Your task to perform on an android device: turn off data saver in the chrome app Image 0: 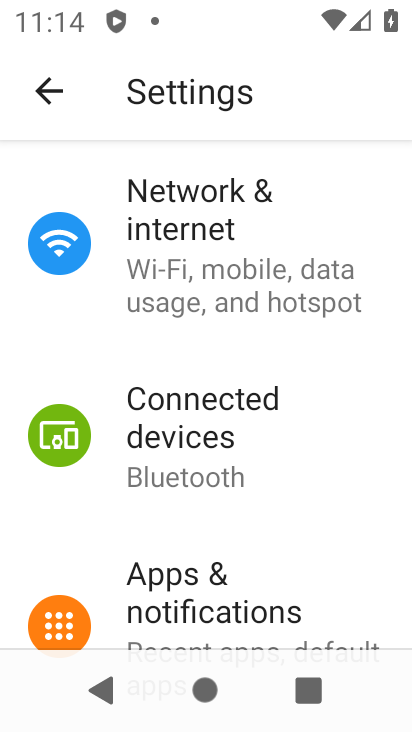
Step 0: press home button
Your task to perform on an android device: turn off data saver in the chrome app Image 1: 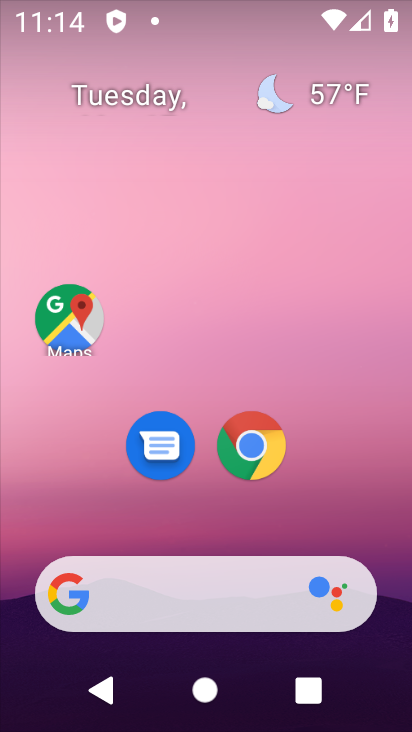
Step 1: drag from (370, 539) to (376, 202)
Your task to perform on an android device: turn off data saver in the chrome app Image 2: 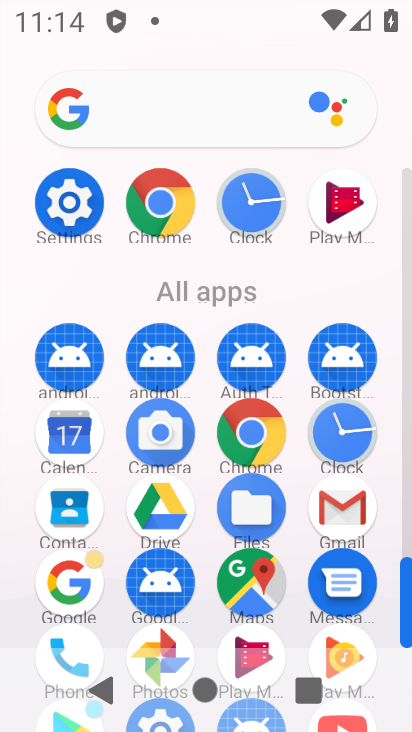
Step 2: click (269, 431)
Your task to perform on an android device: turn off data saver in the chrome app Image 3: 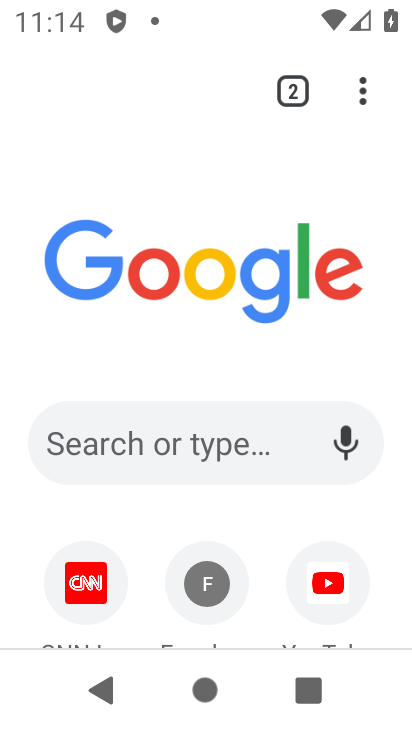
Step 3: click (363, 100)
Your task to perform on an android device: turn off data saver in the chrome app Image 4: 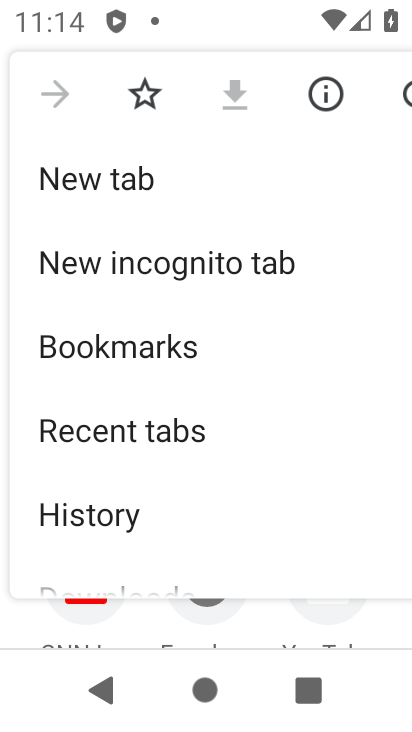
Step 4: drag from (337, 462) to (338, 364)
Your task to perform on an android device: turn off data saver in the chrome app Image 5: 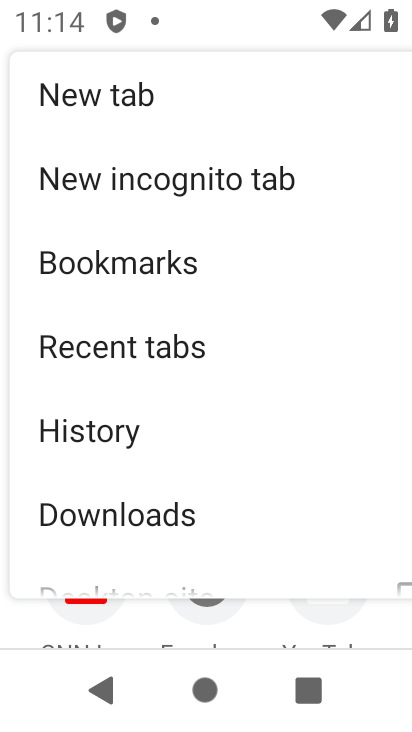
Step 5: drag from (332, 496) to (349, 372)
Your task to perform on an android device: turn off data saver in the chrome app Image 6: 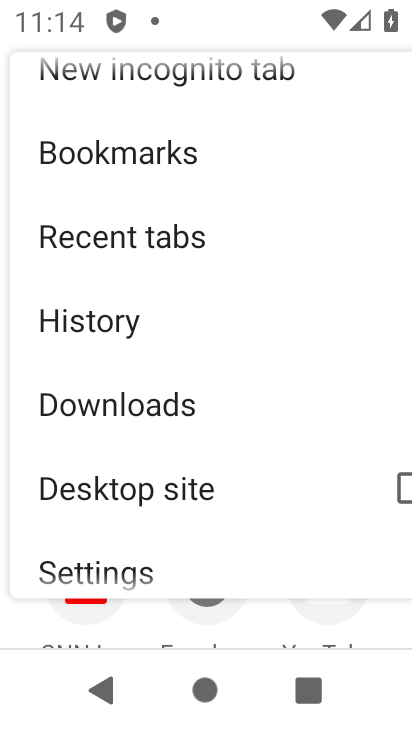
Step 6: drag from (351, 476) to (349, 364)
Your task to perform on an android device: turn off data saver in the chrome app Image 7: 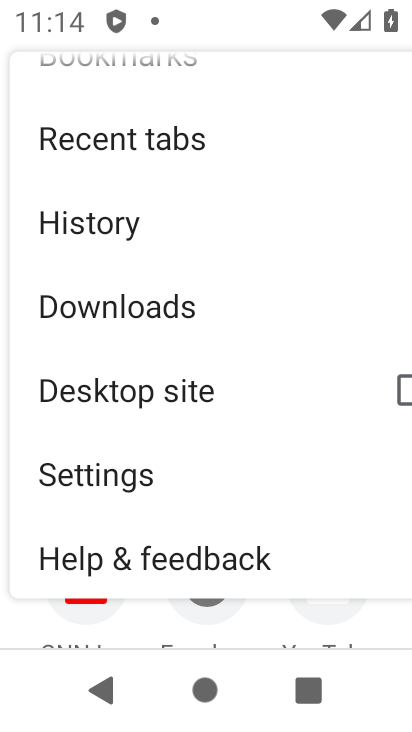
Step 7: drag from (321, 493) to (335, 353)
Your task to perform on an android device: turn off data saver in the chrome app Image 8: 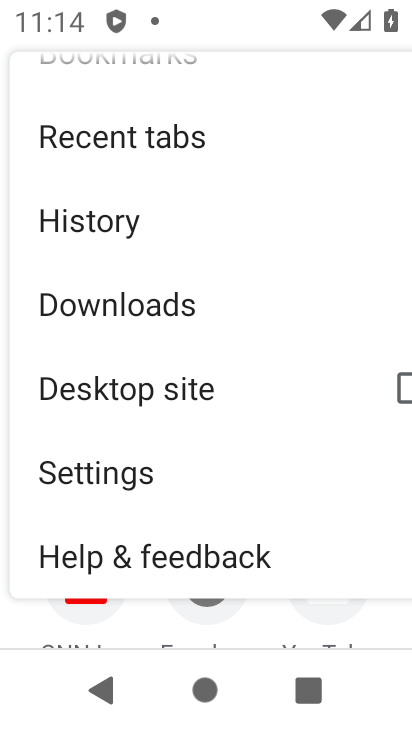
Step 8: drag from (319, 432) to (317, 336)
Your task to perform on an android device: turn off data saver in the chrome app Image 9: 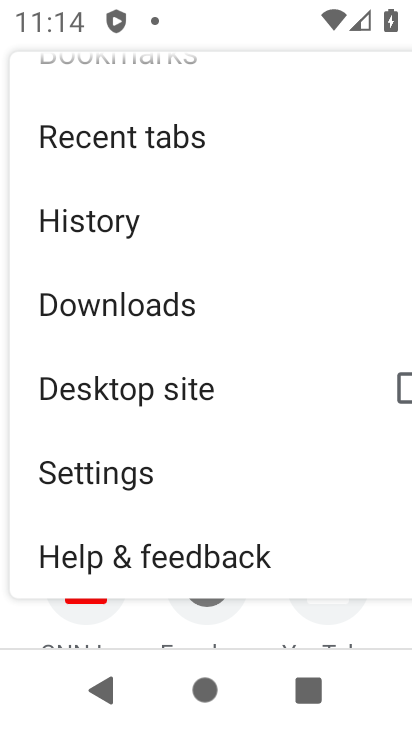
Step 9: click (146, 473)
Your task to perform on an android device: turn off data saver in the chrome app Image 10: 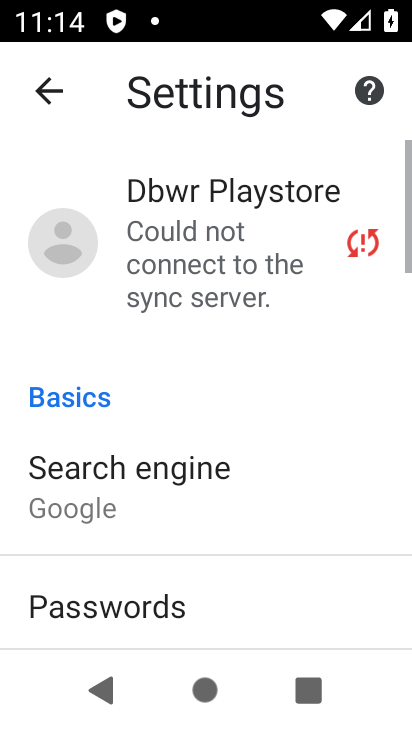
Step 10: drag from (278, 522) to (283, 396)
Your task to perform on an android device: turn off data saver in the chrome app Image 11: 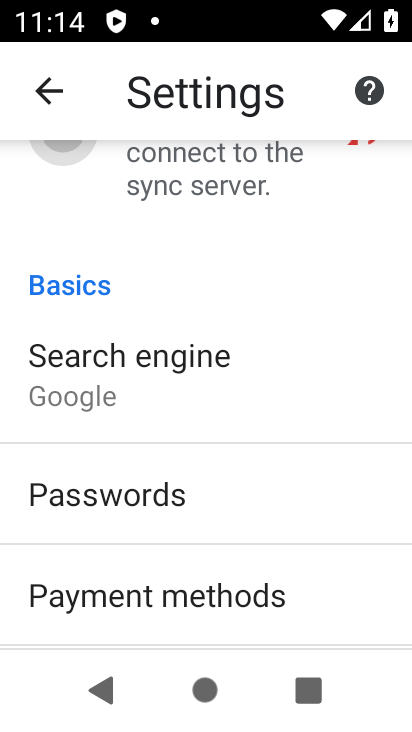
Step 11: drag from (295, 529) to (301, 408)
Your task to perform on an android device: turn off data saver in the chrome app Image 12: 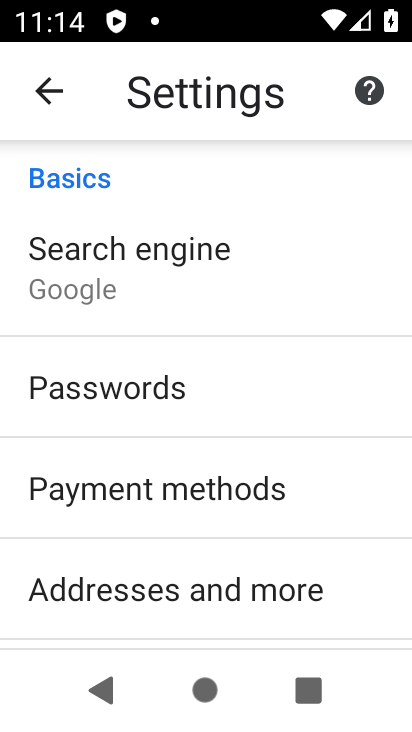
Step 12: drag from (329, 613) to (327, 440)
Your task to perform on an android device: turn off data saver in the chrome app Image 13: 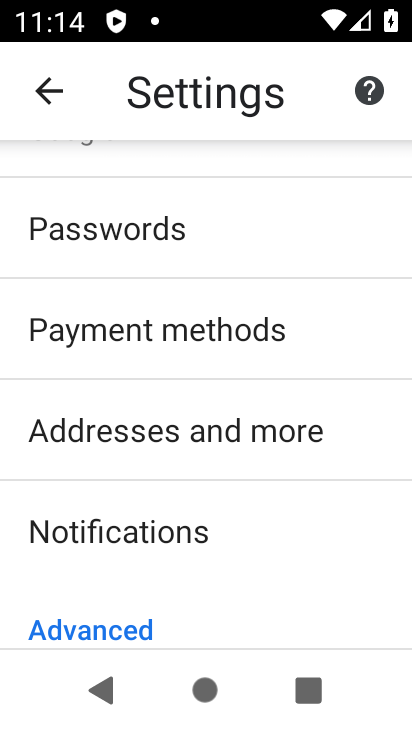
Step 13: drag from (313, 579) to (309, 461)
Your task to perform on an android device: turn off data saver in the chrome app Image 14: 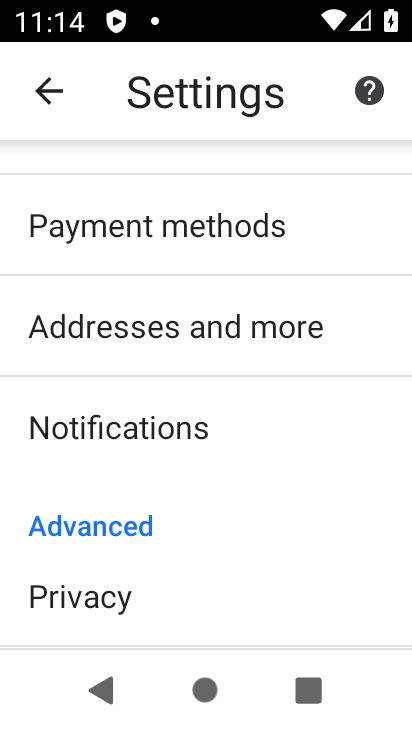
Step 14: drag from (294, 581) to (296, 476)
Your task to perform on an android device: turn off data saver in the chrome app Image 15: 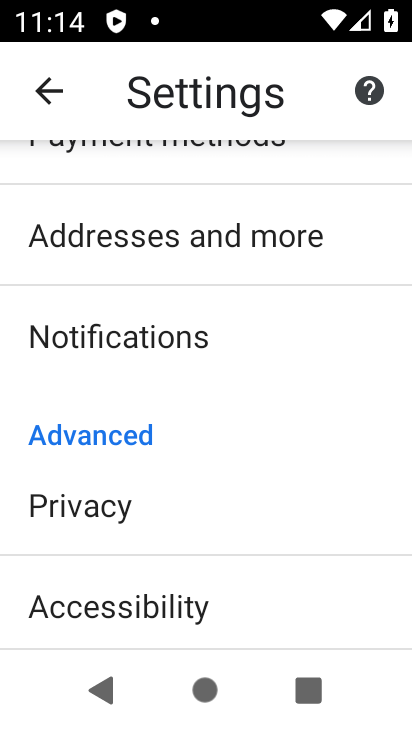
Step 15: drag from (285, 590) to (282, 475)
Your task to perform on an android device: turn off data saver in the chrome app Image 16: 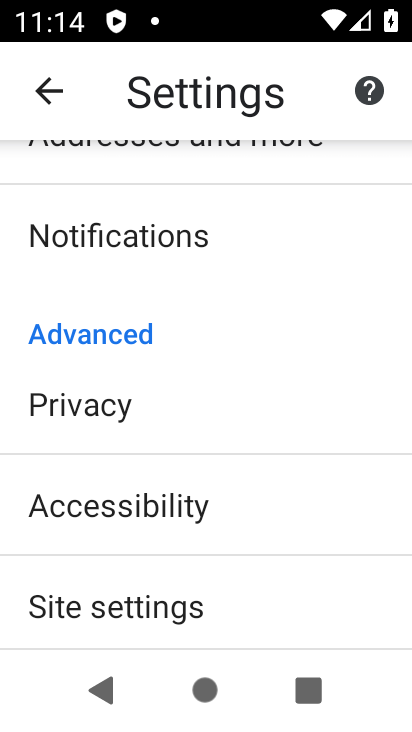
Step 16: drag from (295, 589) to (295, 496)
Your task to perform on an android device: turn off data saver in the chrome app Image 17: 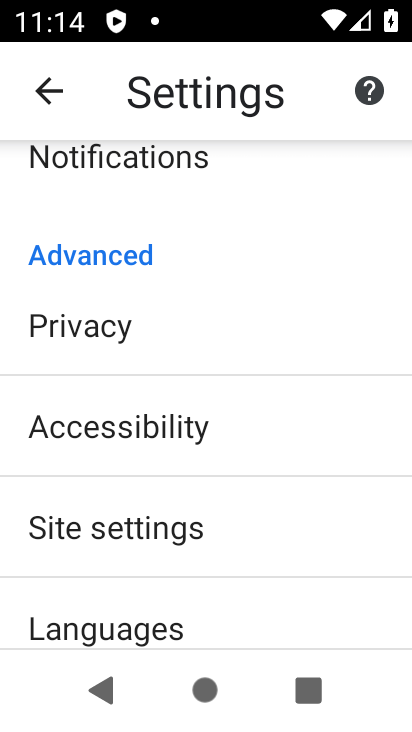
Step 17: drag from (306, 595) to (302, 486)
Your task to perform on an android device: turn off data saver in the chrome app Image 18: 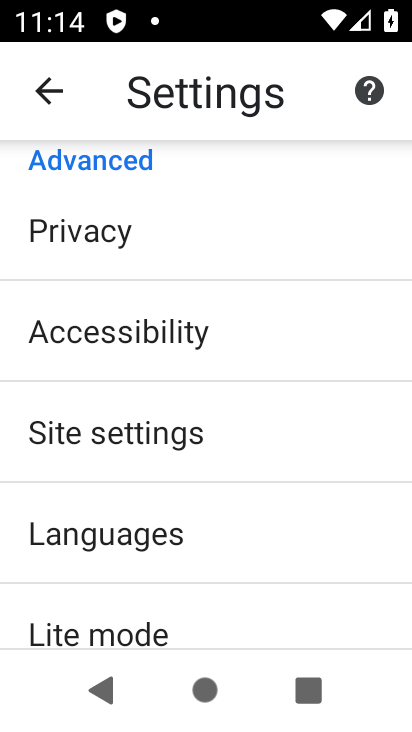
Step 18: drag from (295, 601) to (299, 491)
Your task to perform on an android device: turn off data saver in the chrome app Image 19: 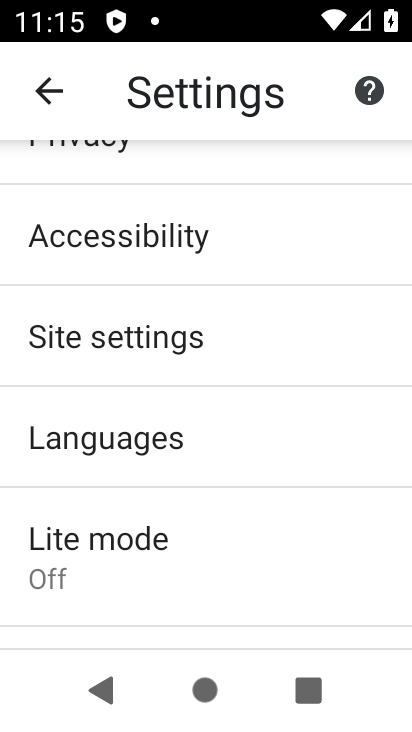
Step 19: drag from (301, 593) to (300, 413)
Your task to perform on an android device: turn off data saver in the chrome app Image 20: 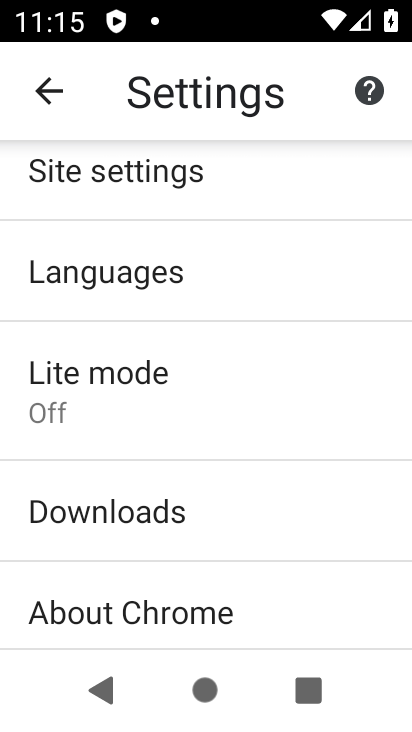
Step 20: drag from (297, 544) to (307, 437)
Your task to perform on an android device: turn off data saver in the chrome app Image 21: 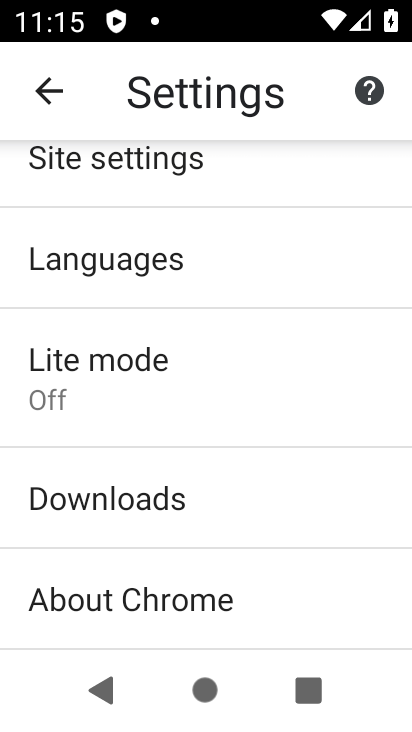
Step 21: click (222, 370)
Your task to perform on an android device: turn off data saver in the chrome app Image 22: 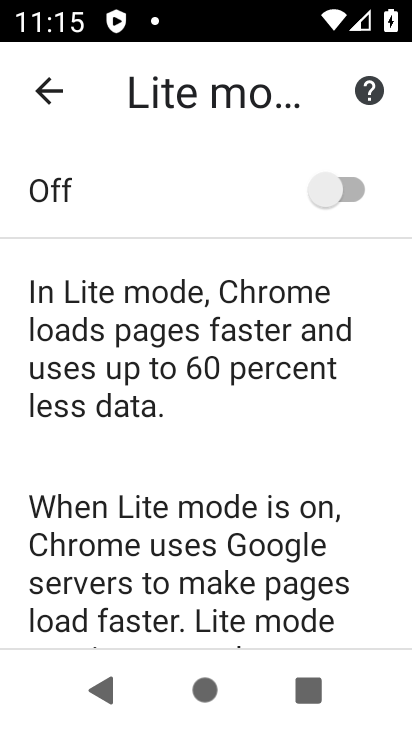
Step 22: task complete